Your task to perform on an android device: Open Chrome and go to settings Image 0: 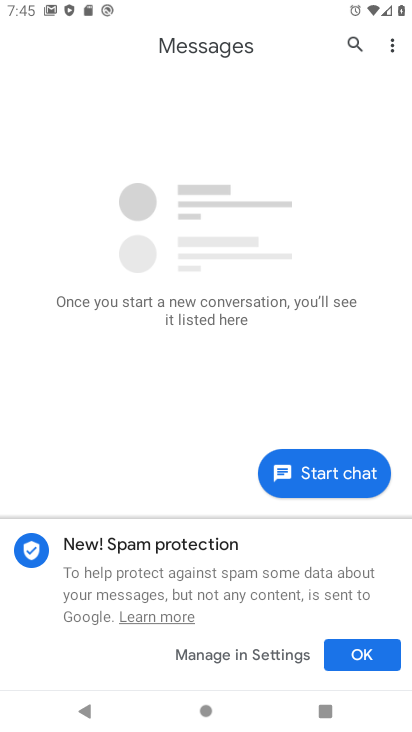
Step 0: press home button
Your task to perform on an android device: Open Chrome and go to settings Image 1: 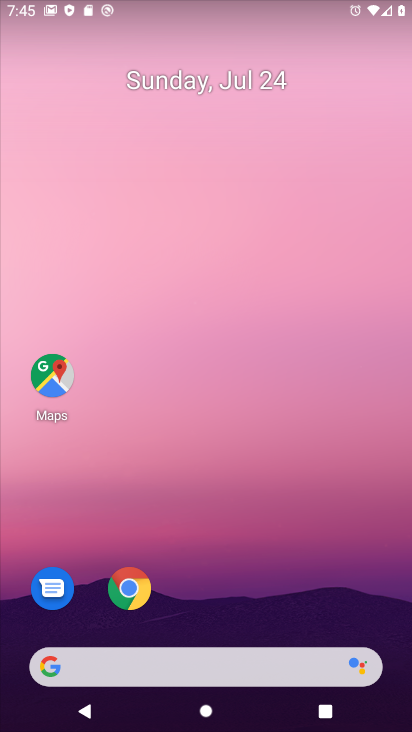
Step 1: drag from (256, 547) to (368, 0)
Your task to perform on an android device: Open Chrome and go to settings Image 2: 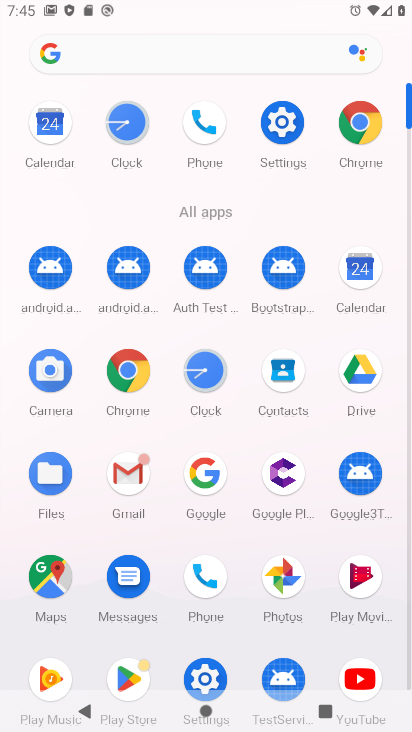
Step 2: click (372, 108)
Your task to perform on an android device: Open Chrome and go to settings Image 3: 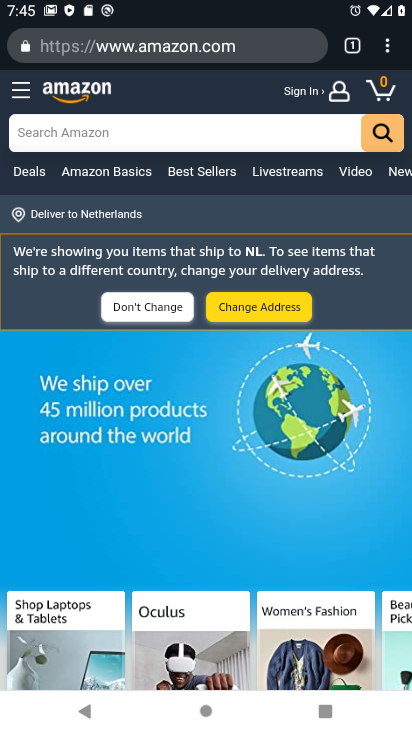
Step 3: task complete